Your task to perform on an android device: check android version Image 0: 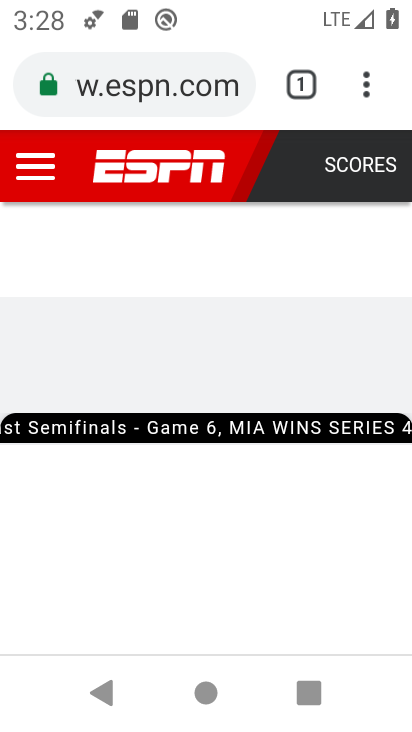
Step 0: press home button
Your task to perform on an android device: check android version Image 1: 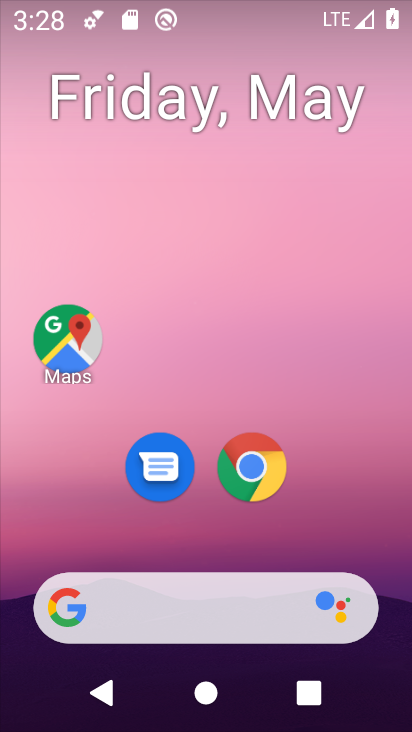
Step 1: drag from (343, 529) to (230, 13)
Your task to perform on an android device: check android version Image 2: 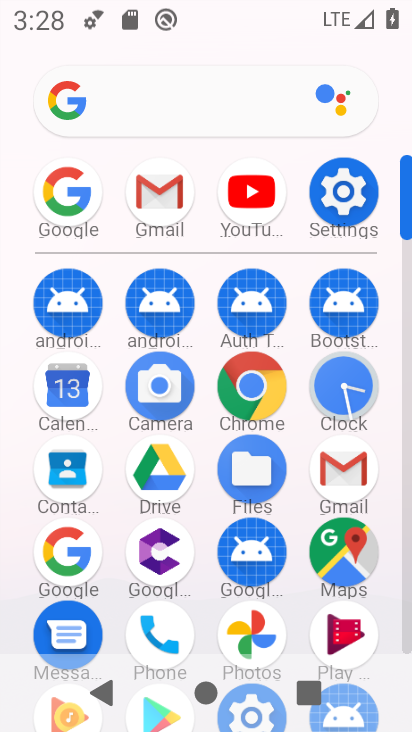
Step 2: click (343, 196)
Your task to perform on an android device: check android version Image 3: 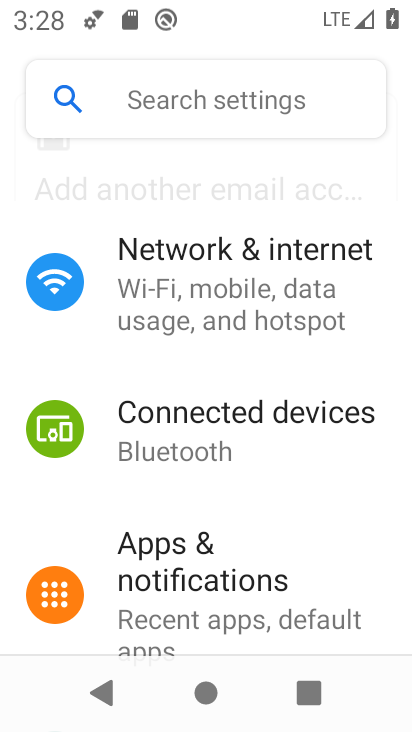
Step 3: drag from (268, 611) to (258, 141)
Your task to perform on an android device: check android version Image 4: 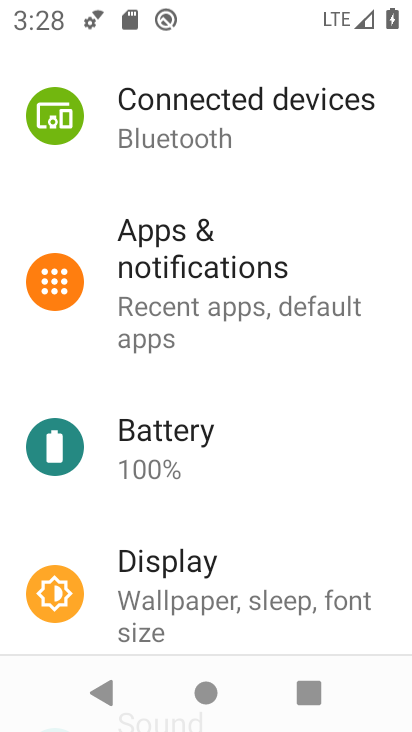
Step 4: drag from (256, 585) to (264, 69)
Your task to perform on an android device: check android version Image 5: 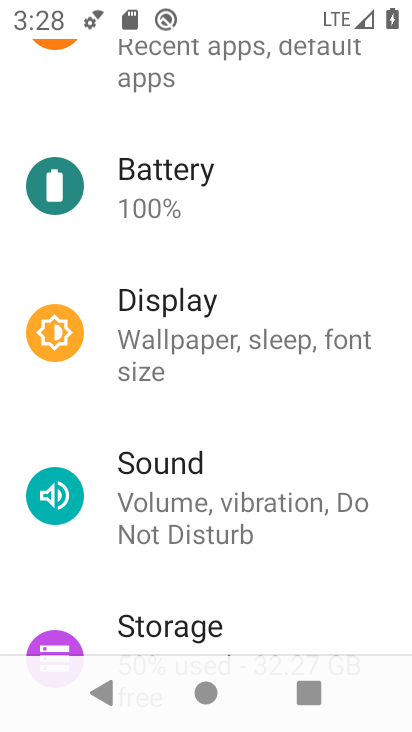
Step 5: drag from (256, 571) to (249, 26)
Your task to perform on an android device: check android version Image 6: 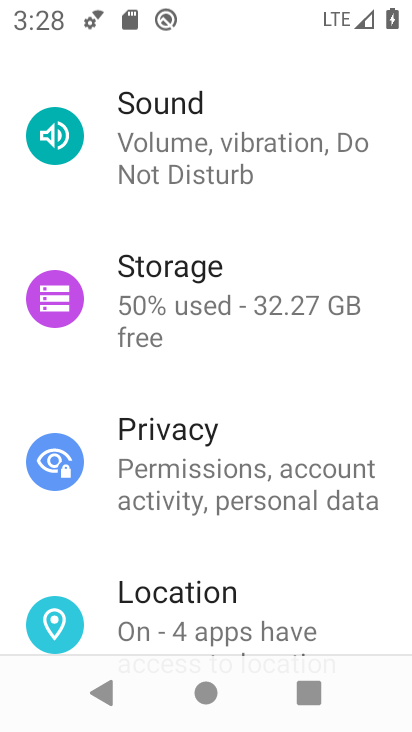
Step 6: drag from (275, 566) to (257, 33)
Your task to perform on an android device: check android version Image 7: 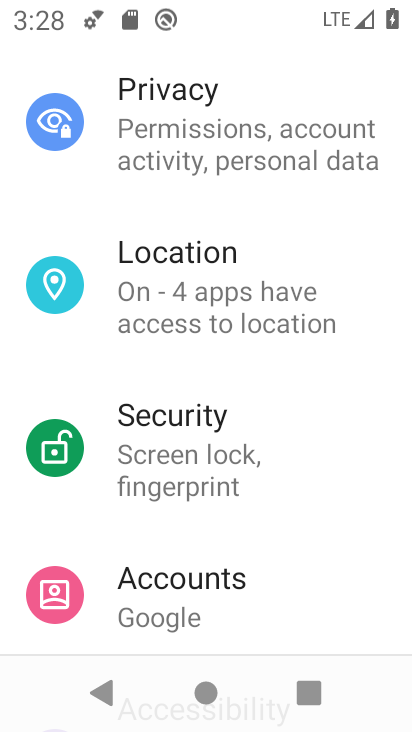
Step 7: drag from (317, 601) to (305, 74)
Your task to perform on an android device: check android version Image 8: 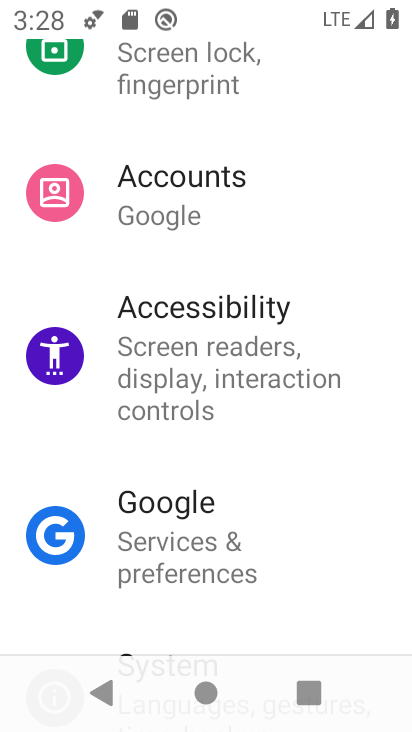
Step 8: drag from (298, 603) to (257, 62)
Your task to perform on an android device: check android version Image 9: 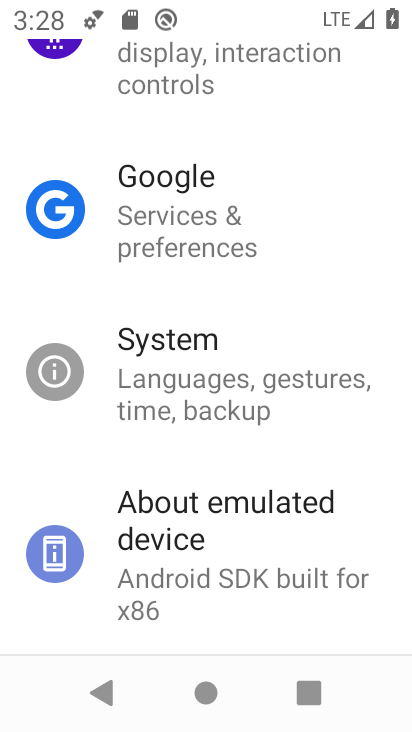
Step 9: click (254, 540)
Your task to perform on an android device: check android version Image 10: 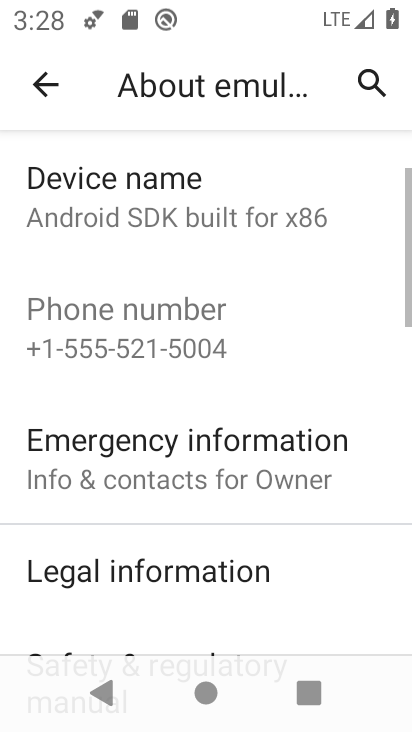
Step 10: drag from (241, 550) to (243, 49)
Your task to perform on an android device: check android version Image 11: 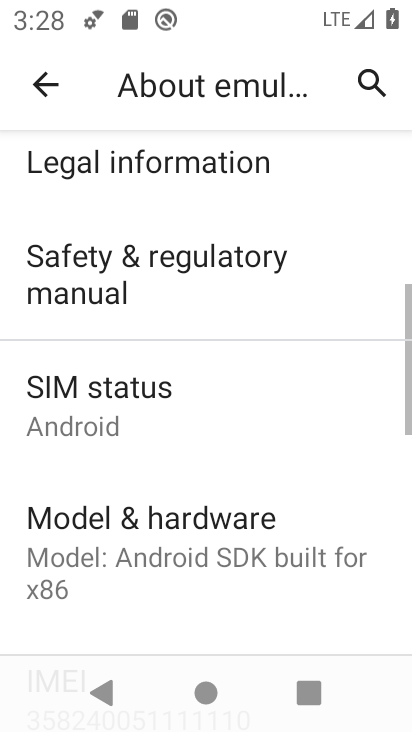
Step 11: drag from (206, 529) to (206, 173)
Your task to perform on an android device: check android version Image 12: 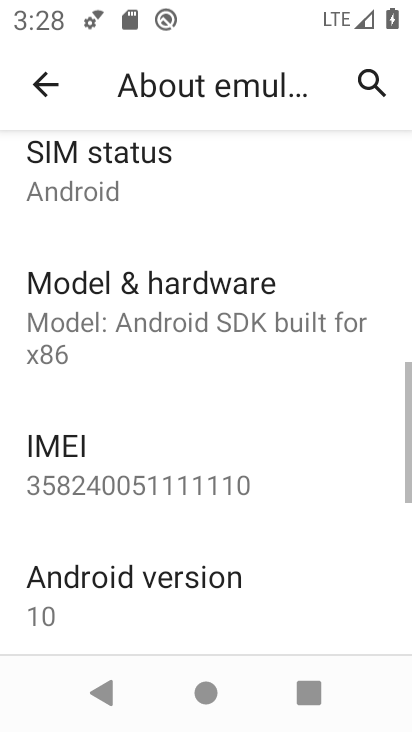
Step 12: click (172, 581)
Your task to perform on an android device: check android version Image 13: 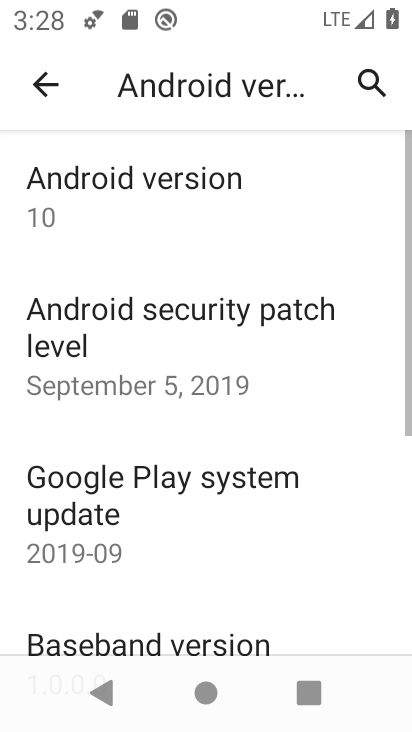
Step 13: click (149, 184)
Your task to perform on an android device: check android version Image 14: 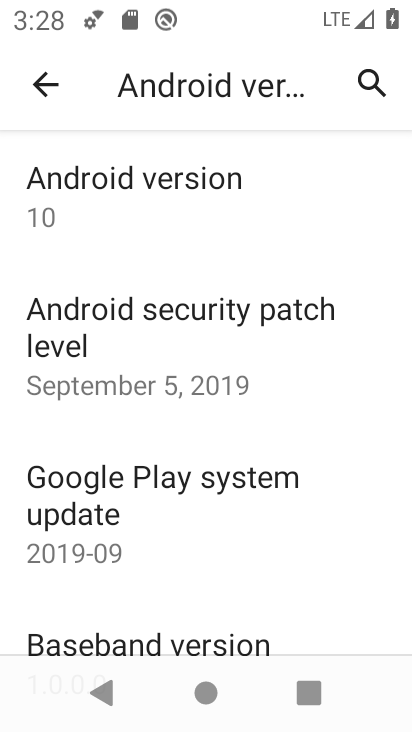
Step 14: task complete